Your task to perform on an android device: Open eBay Image 0: 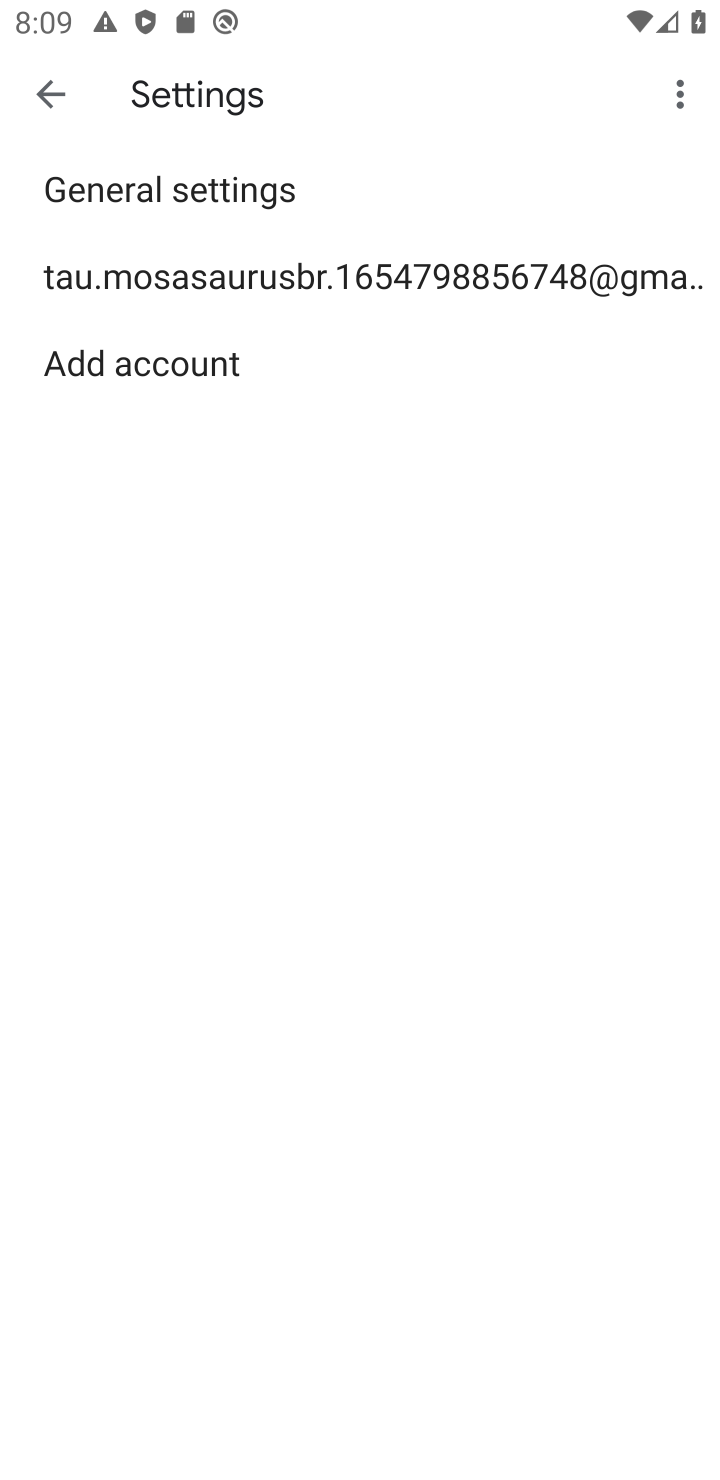
Step 0: press home button
Your task to perform on an android device: Open eBay Image 1: 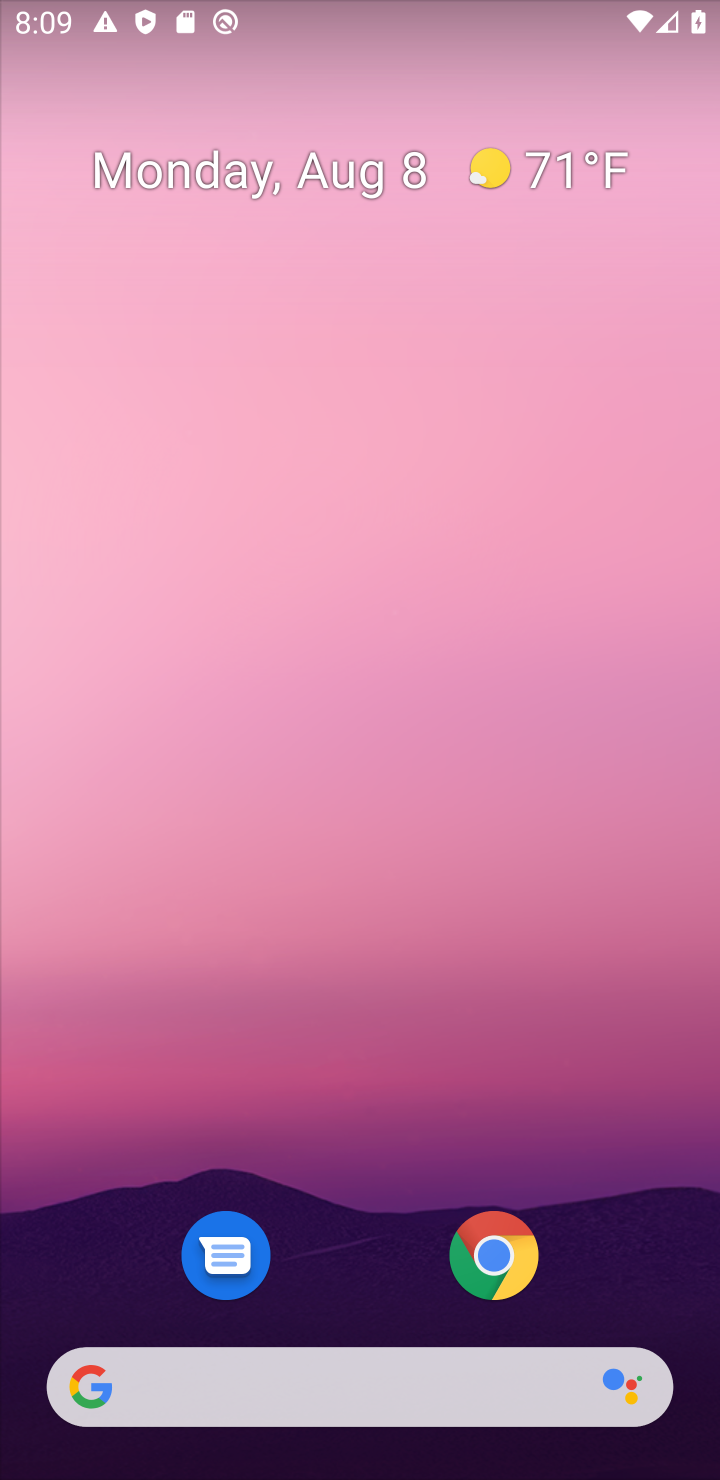
Step 1: click (515, 1247)
Your task to perform on an android device: Open eBay Image 2: 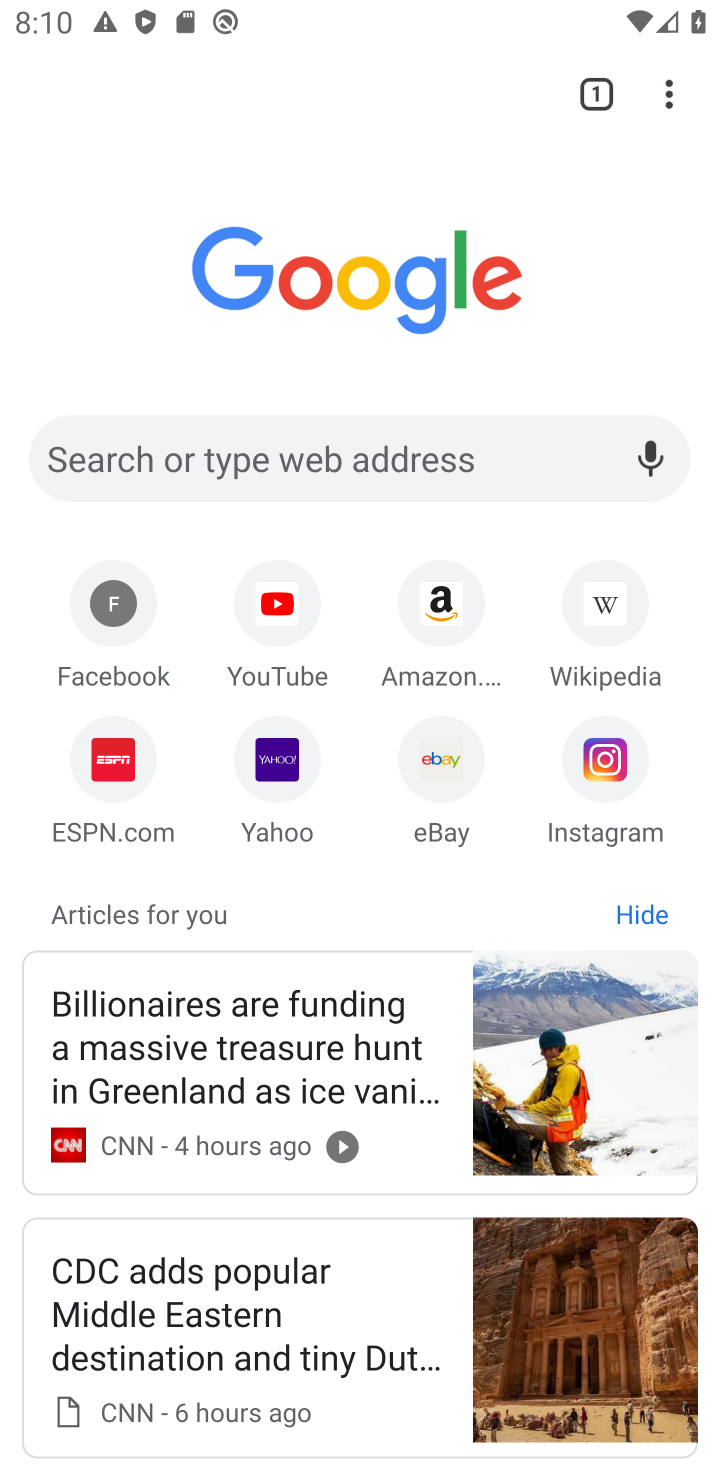
Step 2: click (467, 758)
Your task to perform on an android device: Open eBay Image 3: 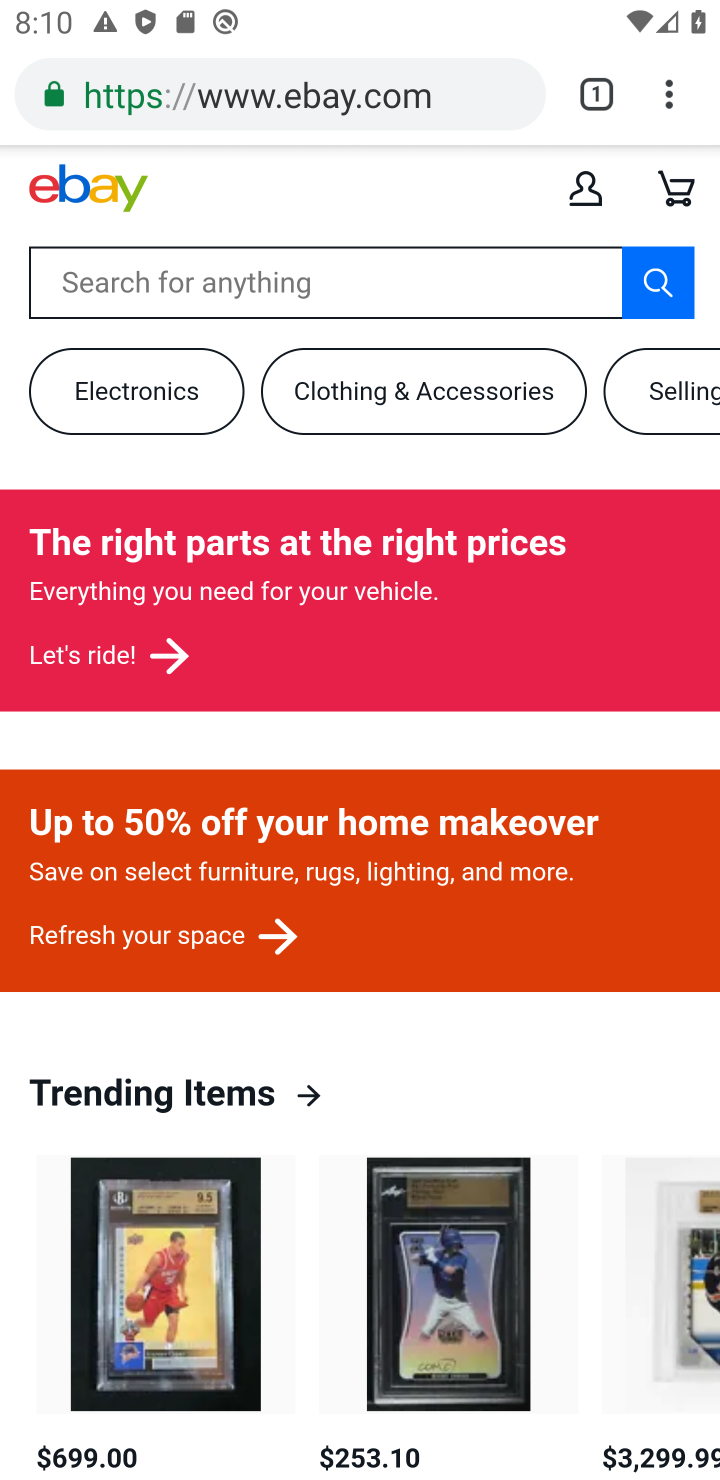
Step 3: task complete